Your task to perform on an android device: Go to location settings Image 0: 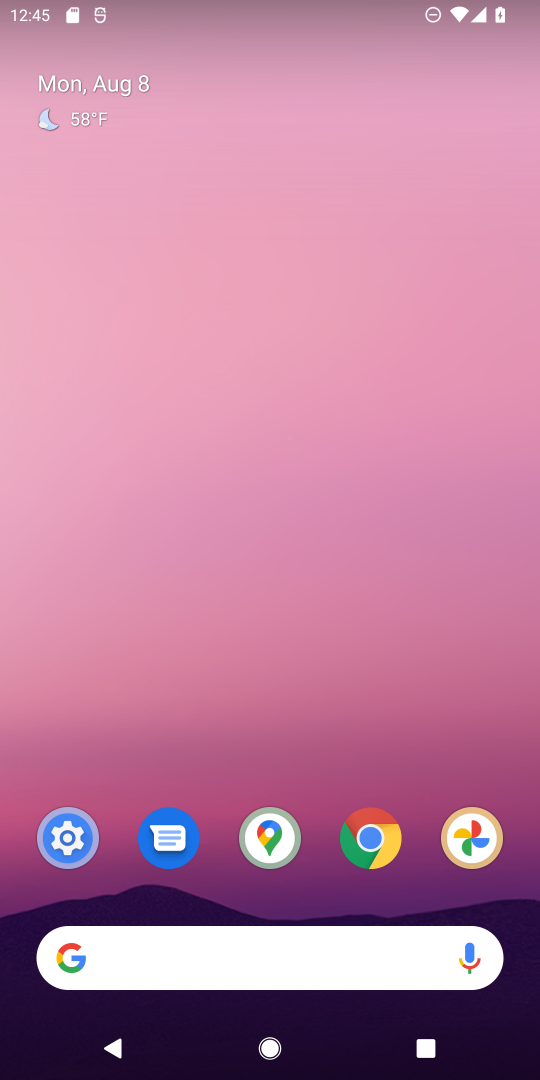
Step 0: press home button
Your task to perform on an android device: Go to location settings Image 1: 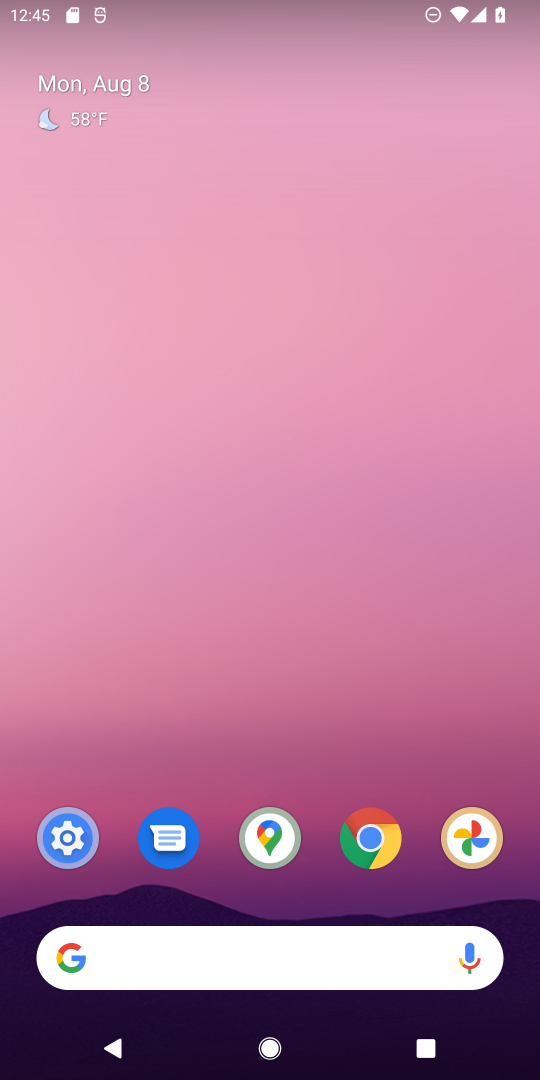
Step 1: click (63, 838)
Your task to perform on an android device: Go to location settings Image 2: 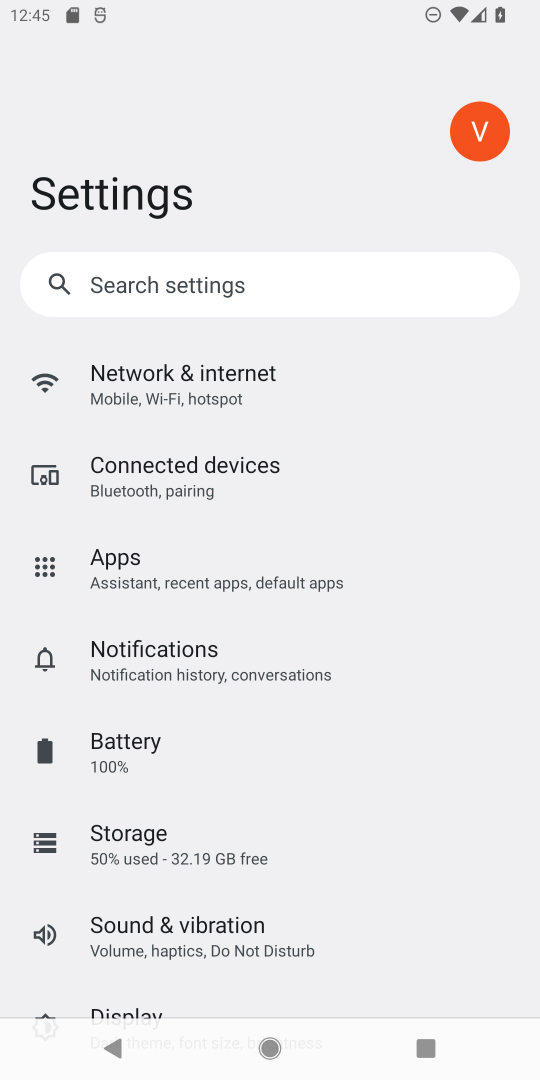
Step 2: drag from (208, 799) to (263, 136)
Your task to perform on an android device: Go to location settings Image 3: 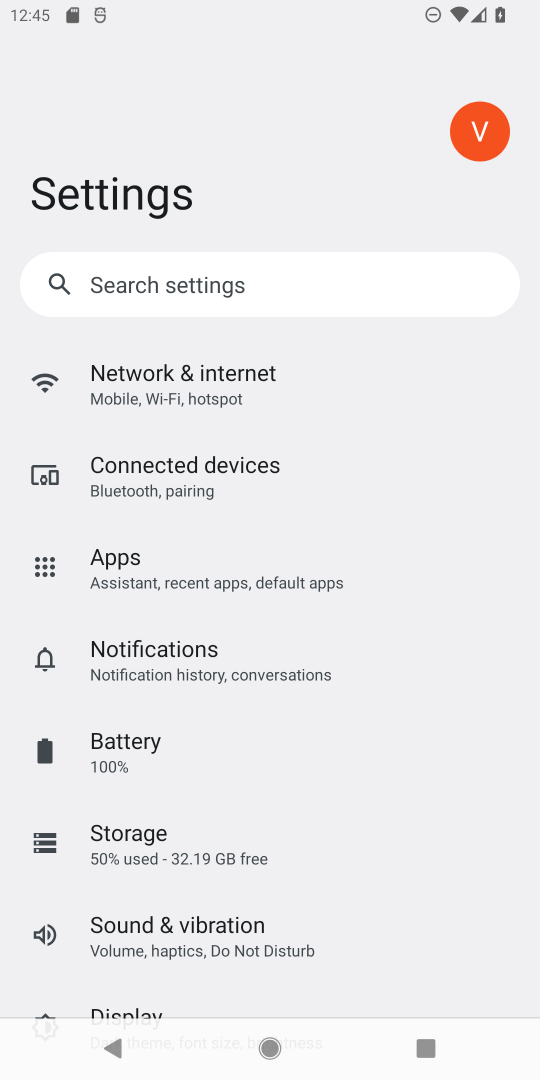
Step 3: drag from (233, 794) to (214, 221)
Your task to perform on an android device: Go to location settings Image 4: 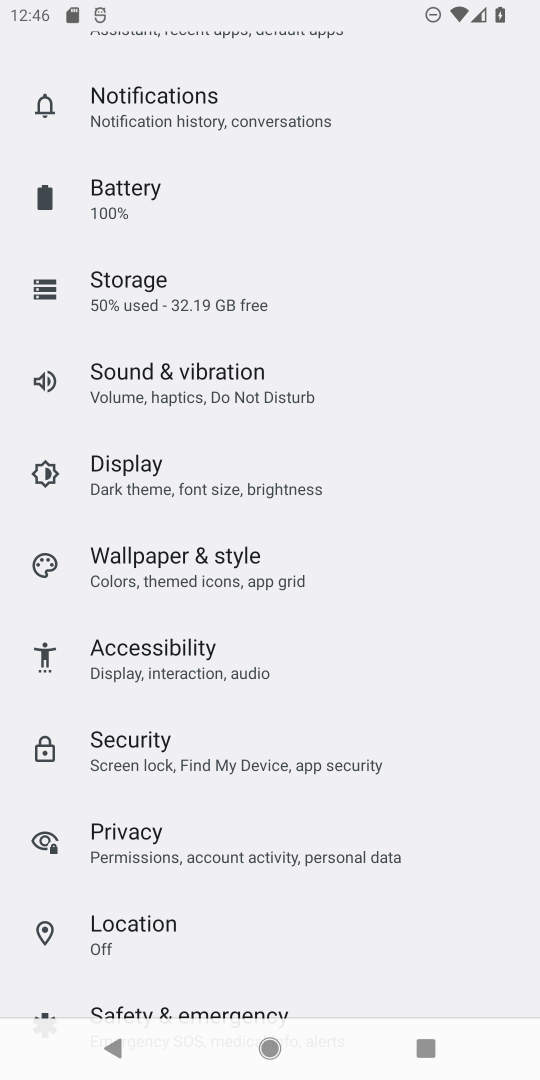
Step 4: click (170, 930)
Your task to perform on an android device: Go to location settings Image 5: 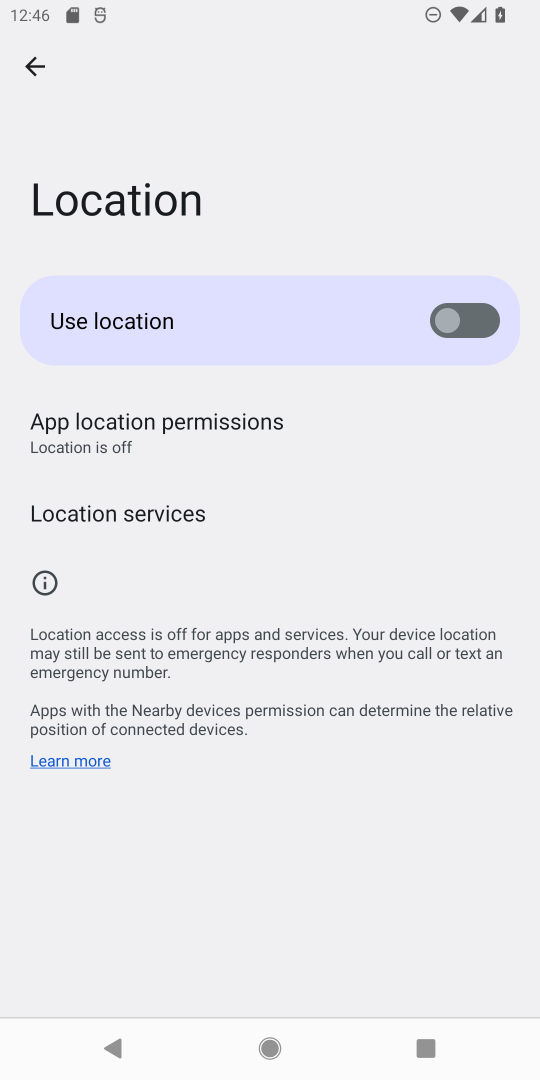
Step 5: task complete